Your task to perform on an android device: clear all cookies in the chrome app Image 0: 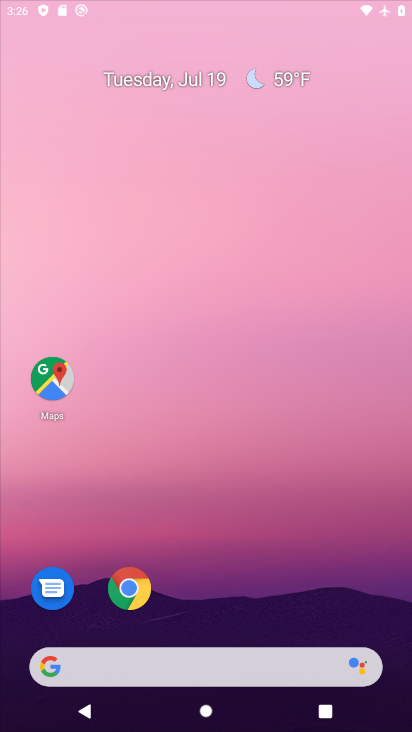
Step 0: press home button
Your task to perform on an android device: clear all cookies in the chrome app Image 1: 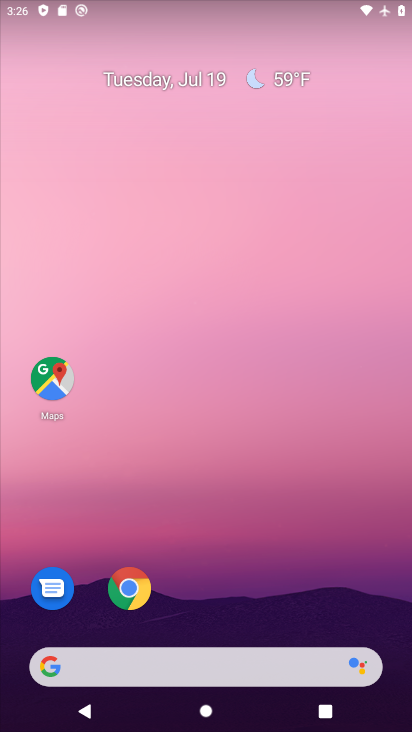
Step 1: drag from (251, 633) to (241, 172)
Your task to perform on an android device: clear all cookies in the chrome app Image 2: 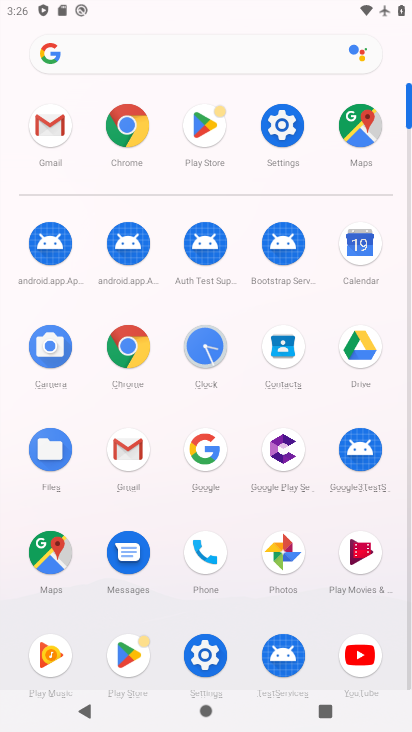
Step 2: click (126, 130)
Your task to perform on an android device: clear all cookies in the chrome app Image 3: 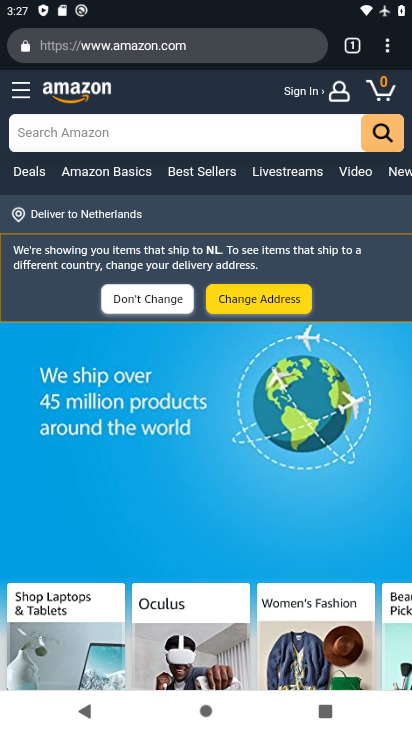
Step 3: drag from (393, 44) to (231, 502)
Your task to perform on an android device: clear all cookies in the chrome app Image 4: 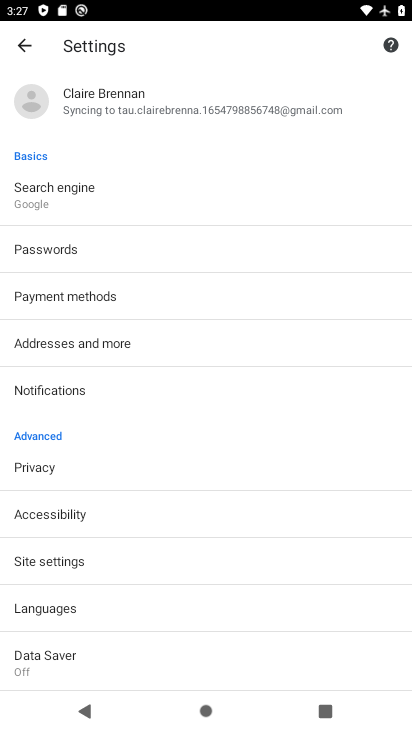
Step 4: click (31, 475)
Your task to perform on an android device: clear all cookies in the chrome app Image 5: 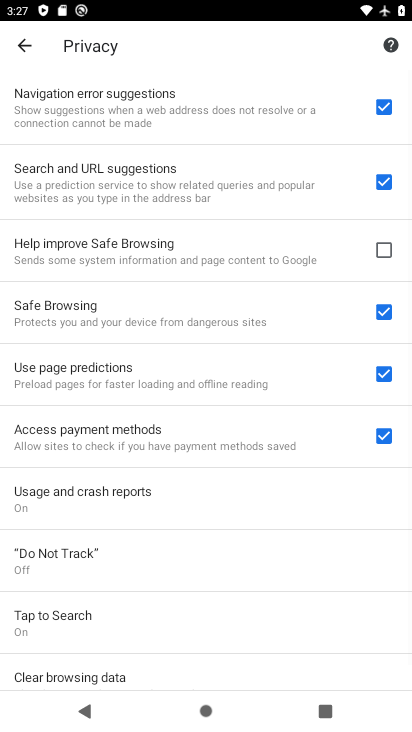
Step 5: click (67, 674)
Your task to perform on an android device: clear all cookies in the chrome app Image 6: 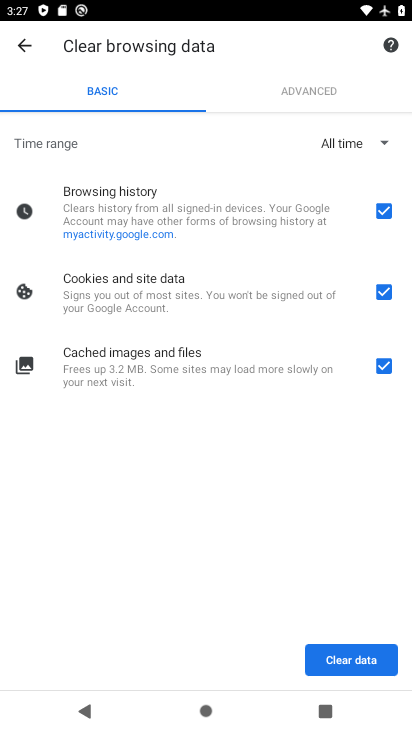
Step 6: click (385, 211)
Your task to perform on an android device: clear all cookies in the chrome app Image 7: 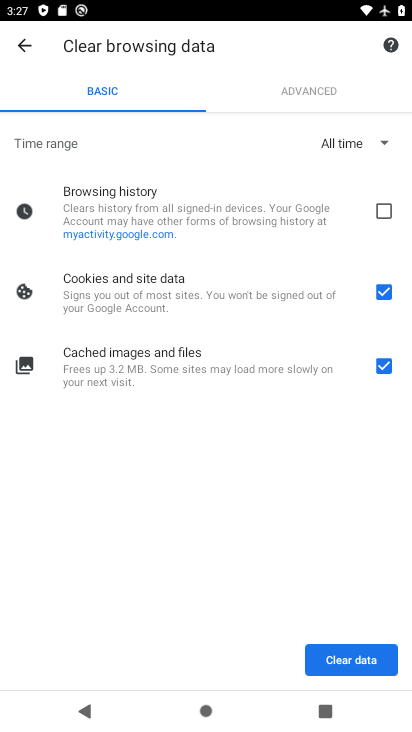
Step 7: click (388, 369)
Your task to perform on an android device: clear all cookies in the chrome app Image 8: 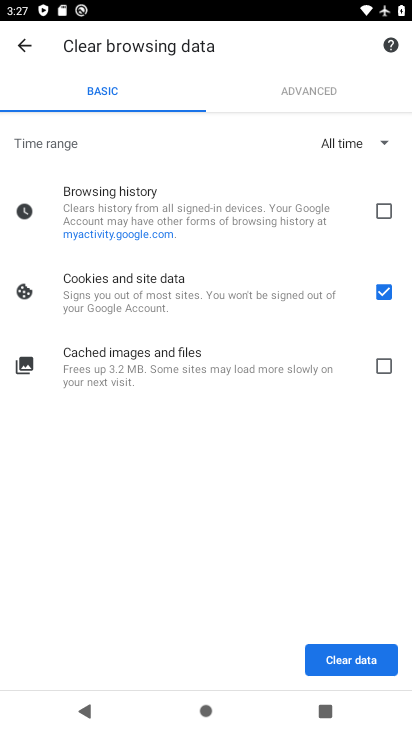
Step 8: click (343, 658)
Your task to perform on an android device: clear all cookies in the chrome app Image 9: 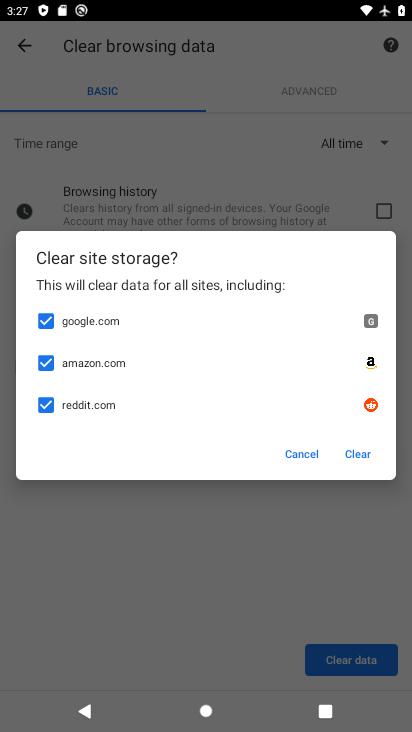
Step 9: click (360, 459)
Your task to perform on an android device: clear all cookies in the chrome app Image 10: 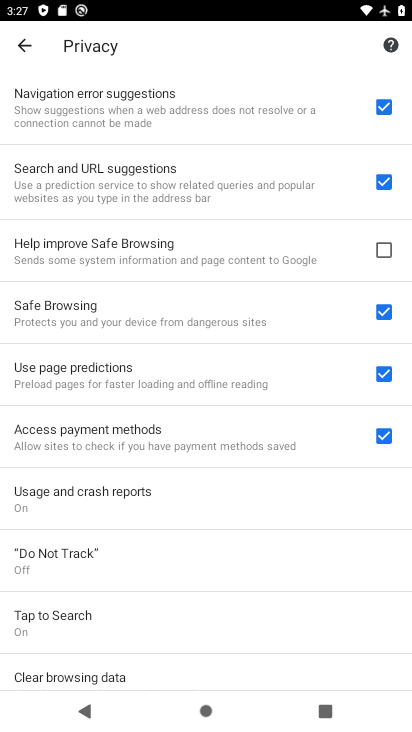
Step 10: task complete